Your task to perform on an android device: check out phone information Image 0: 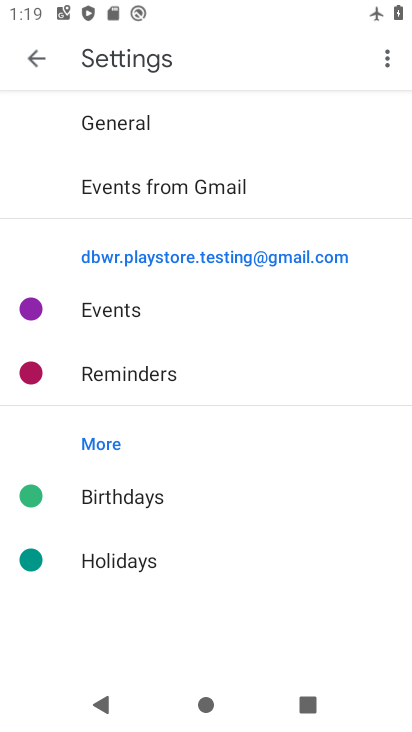
Step 0: press home button
Your task to perform on an android device: check out phone information Image 1: 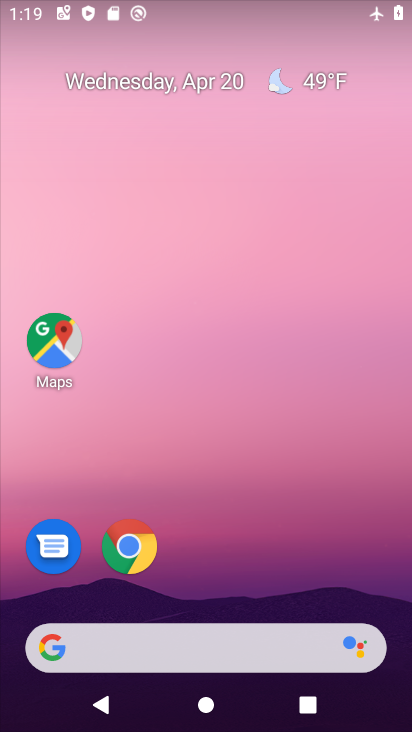
Step 1: drag from (235, 479) to (274, 114)
Your task to perform on an android device: check out phone information Image 2: 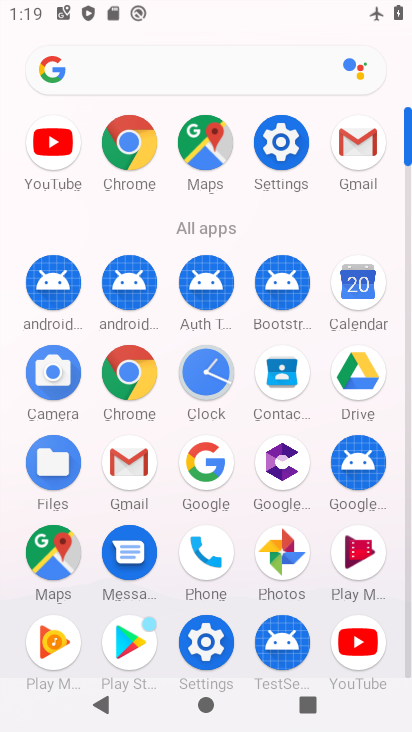
Step 2: click (281, 129)
Your task to perform on an android device: check out phone information Image 3: 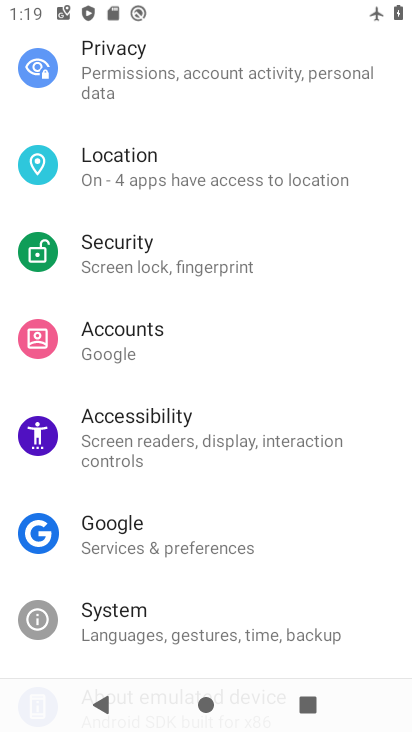
Step 3: drag from (259, 588) to (322, 93)
Your task to perform on an android device: check out phone information Image 4: 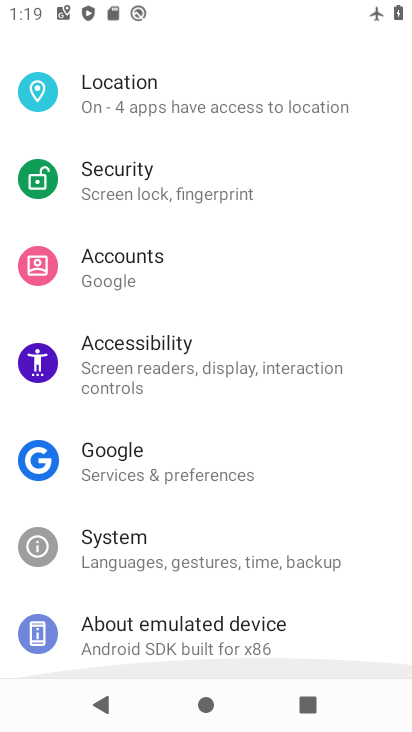
Step 4: click (205, 643)
Your task to perform on an android device: check out phone information Image 5: 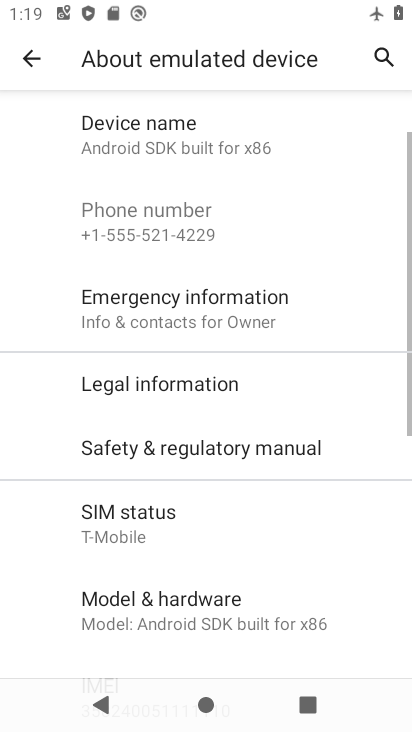
Step 5: task complete